Your task to perform on an android device: visit the assistant section in the google photos Image 0: 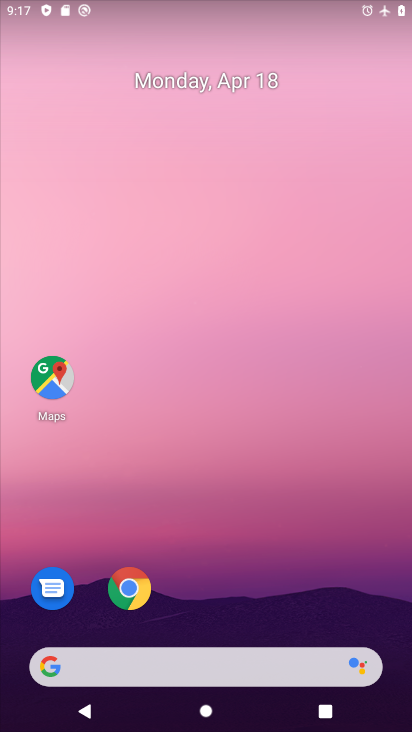
Step 0: drag from (270, 574) to (311, 153)
Your task to perform on an android device: visit the assistant section in the google photos Image 1: 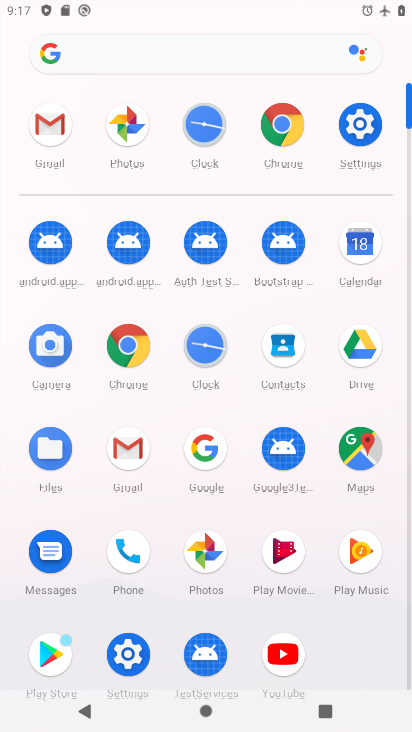
Step 1: click (193, 546)
Your task to perform on an android device: visit the assistant section in the google photos Image 2: 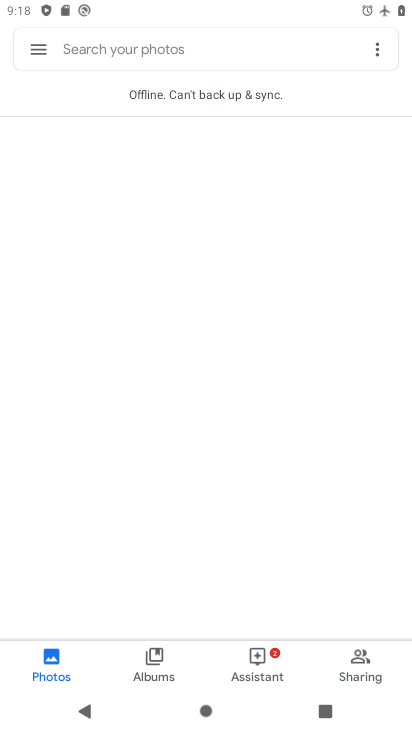
Step 2: click (247, 665)
Your task to perform on an android device: visit the assistant section in the google photos Image 3: 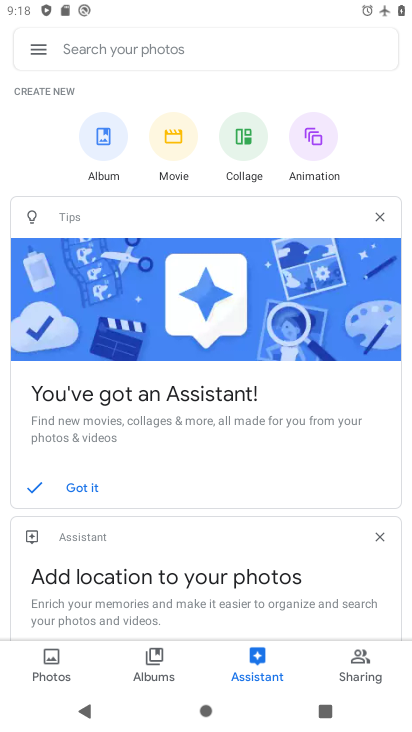
Step 3: task complete